Your task to perform on an android device: set default search engine in the chrome app Image 0: 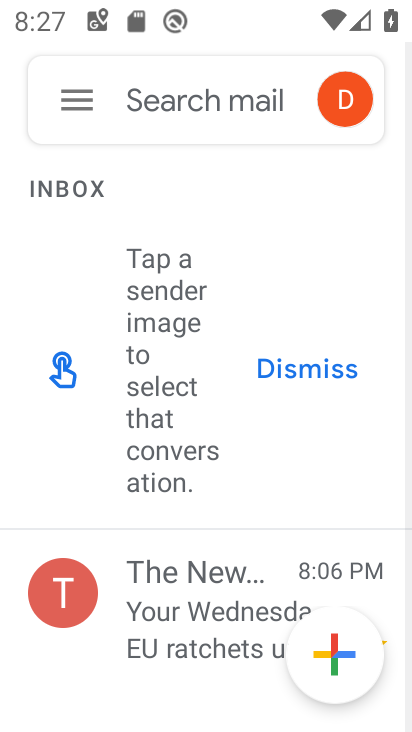
Step 0: press back button
Your task to perform on an android device: set default search engine in the chrome app Image 1: 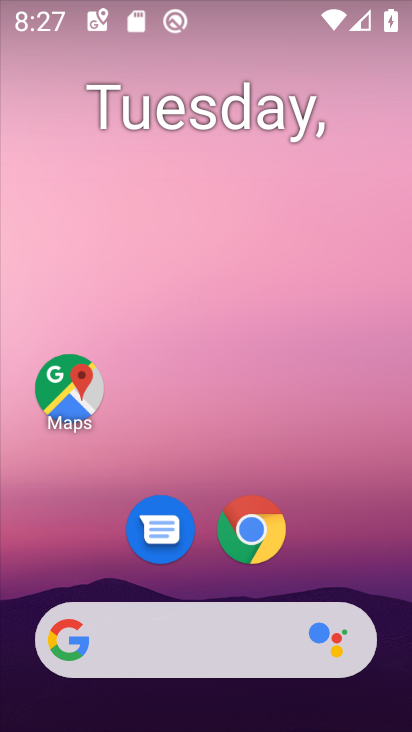
Step 1: click (254, 527)
Your task to perform on an android device: set default search engine in the chrome app Image 2: 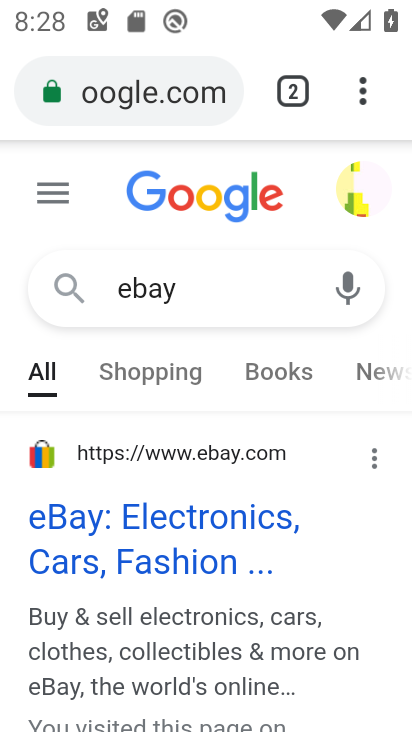
Step 2: drag from (363, 85) to (93, 552)
Your task to perform on an android device: set default search engine in the chrome app Image 3: 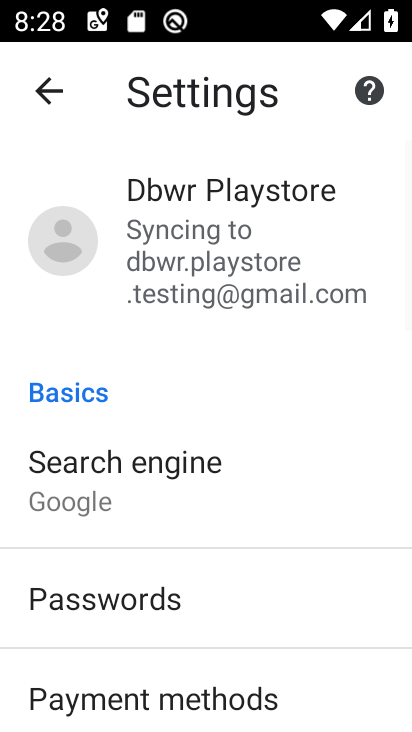
Step 3: click (141, 515)
Your task to perform on an android device: set default search engine in the chrome app Image 4: 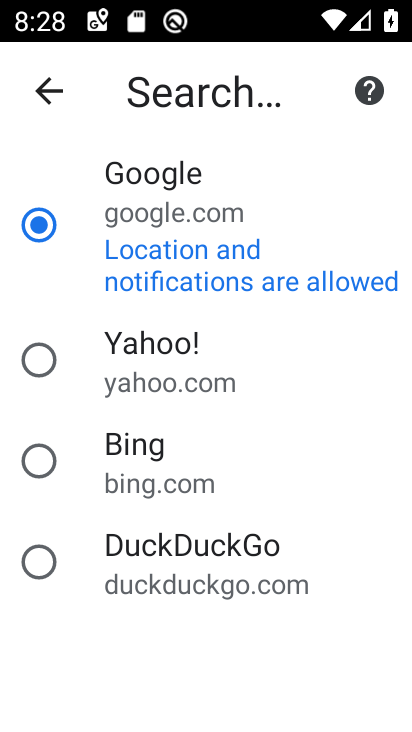
Step 4: click (48, 355)
Your task to perform on an android device: set default search engine in the chrome app Image 5: 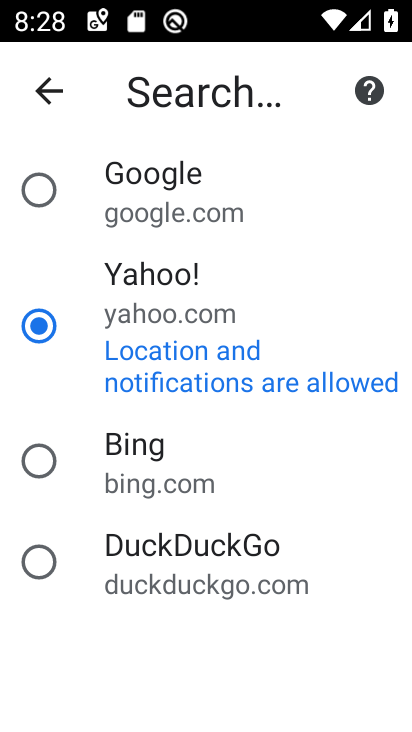
Step 5: task complete